Your task to perform on an android device: turn on airplane mode Image 0: 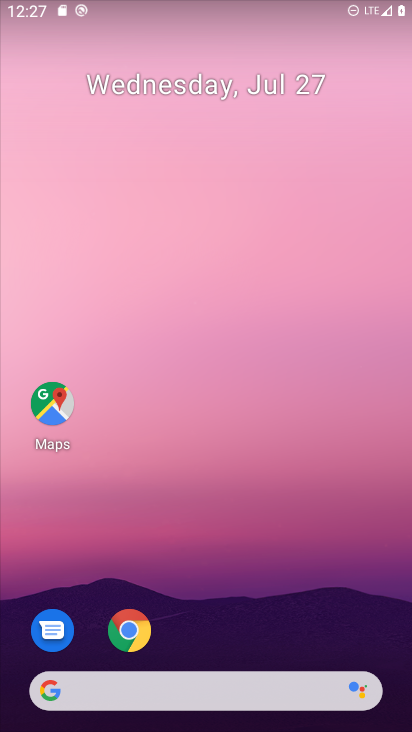
Step 0: drag from (380, 631) to (303, 76)
Your task to perform on an android device: turn on airplane mode Image 1: 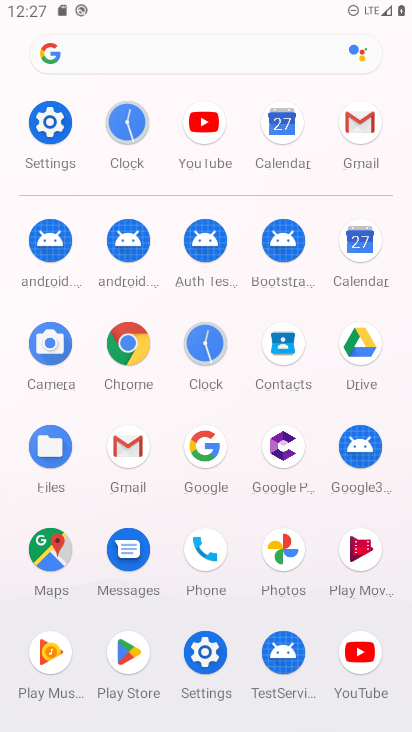
Step 1: click (208, 654)
Your task to perform on an android device: turn on airplane mode Image 2: 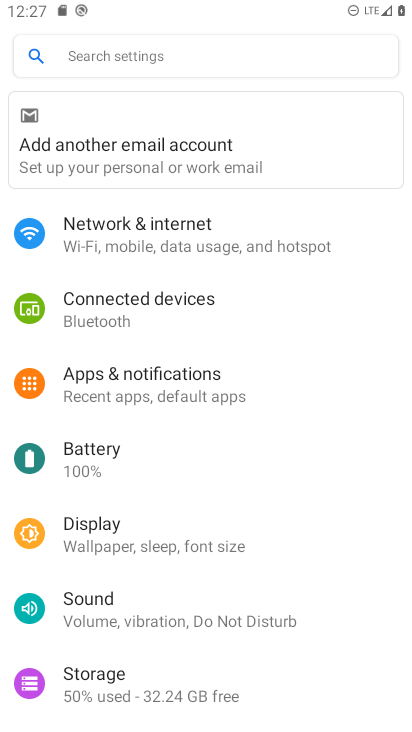
Step 2: click (135, 232)
Your task to perform on an android device: turn on airplane mode Image 3: 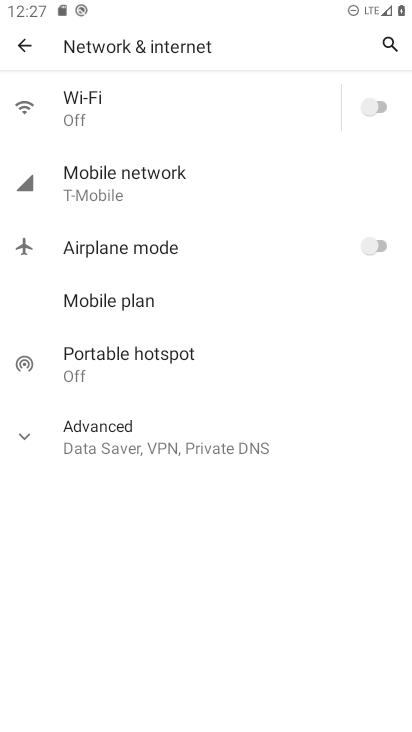
Step 3: click (379, 249)
Your task to perform on an android device: turn on airplane mode Image 4: 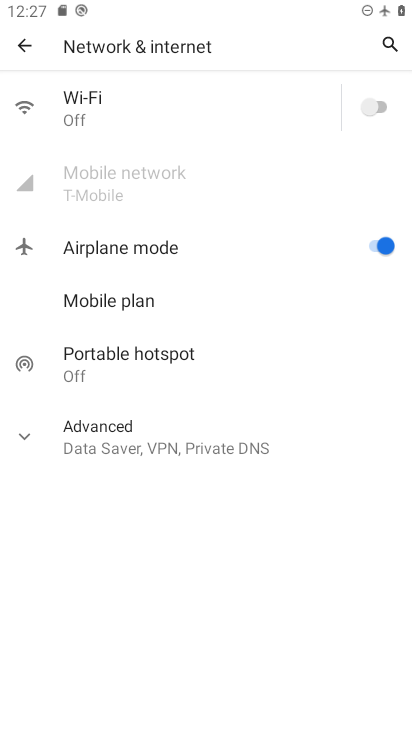
Step 4: task complete